Your task to perform on an android device: turn off airplane mode Image 0: 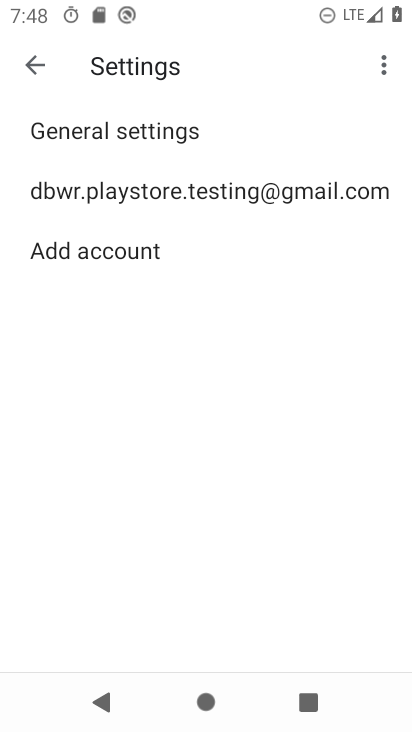
Step 0: press home button
Your task to perform on an android device: turn off airplane mode Image 1: 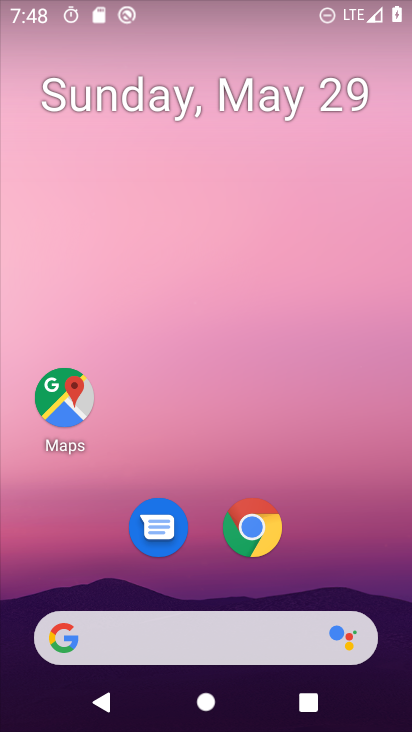
Step 1: task complete